Your task to perform on an android device: Show me recent news Image 0: 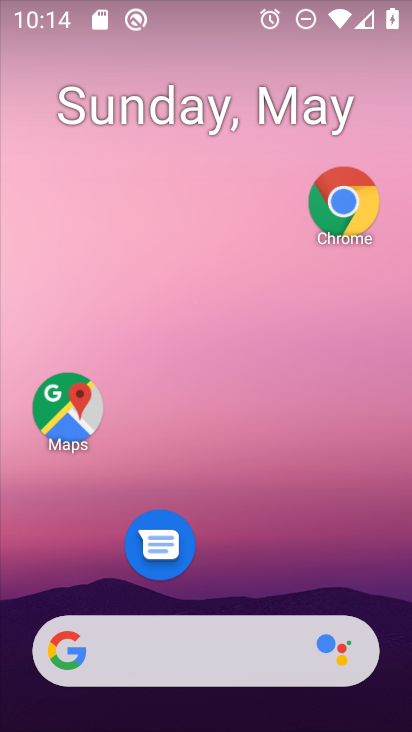
Step 0: click (149, 643)
Your task to perform on an android device: Show me recent news Image 1: 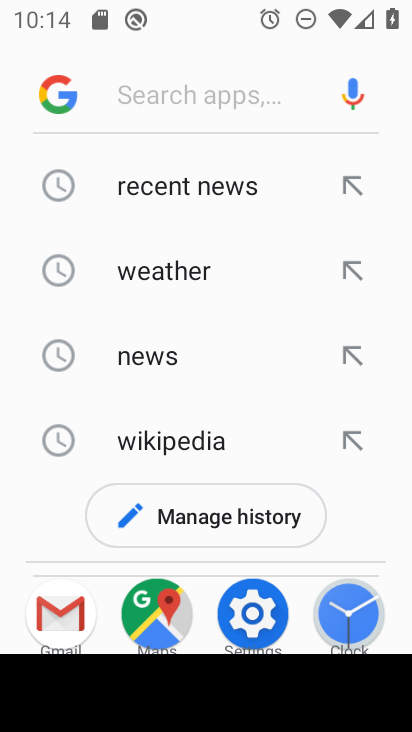
Step 1: type "recent news"
Your task to perform on an android device: Show me recent news Image 2: 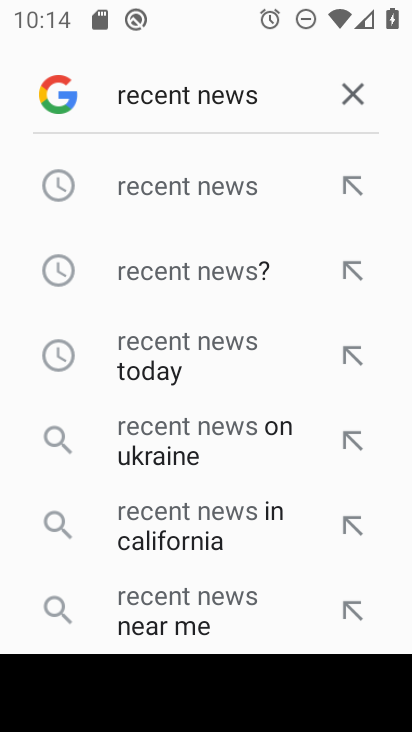
Step 2: click (189, 189)
Your task to perform on an android device: Show me recent news Image 3: 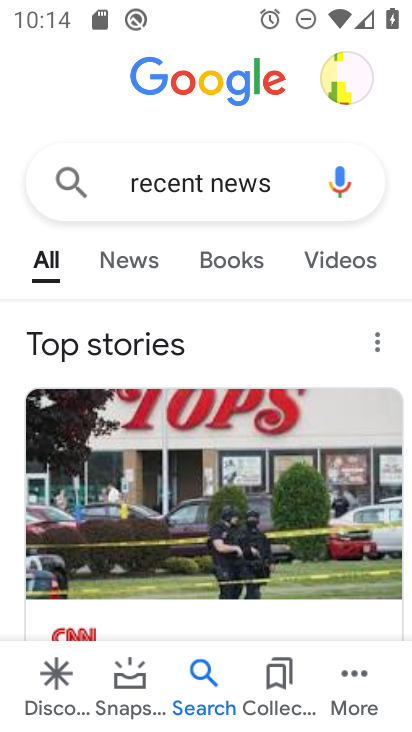
Step 3: click (107, 258)
Your task to perform on an android device: Show me recent news Image 4: 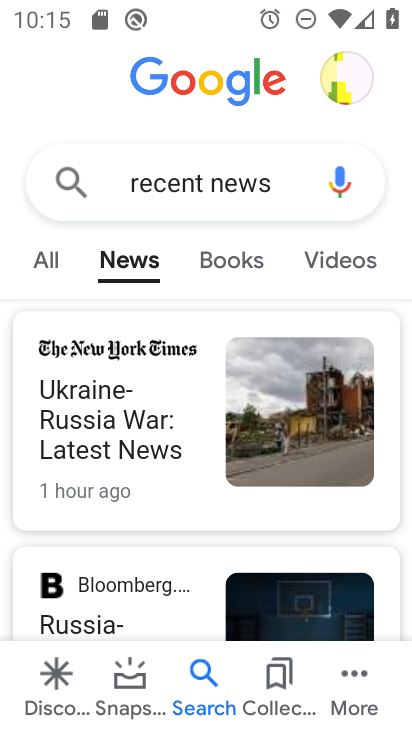
Step 4: task complete